Your task to perform on an android device: Go to notification settings Image 0: 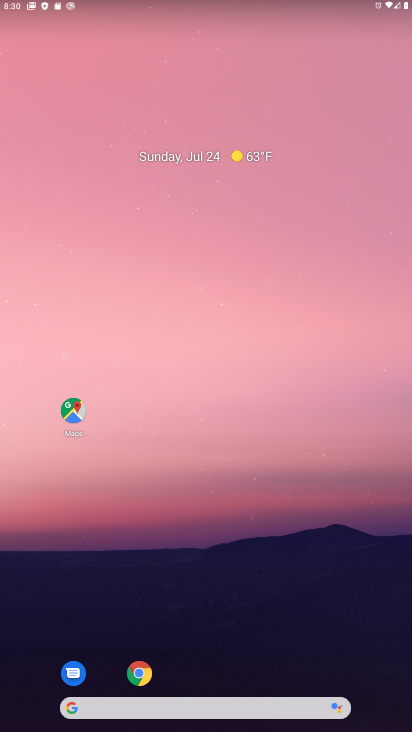
Step 0: drag from (176, 684) to (74, 29)
Your task to perform on an android device: Go to notification settings Image 1: 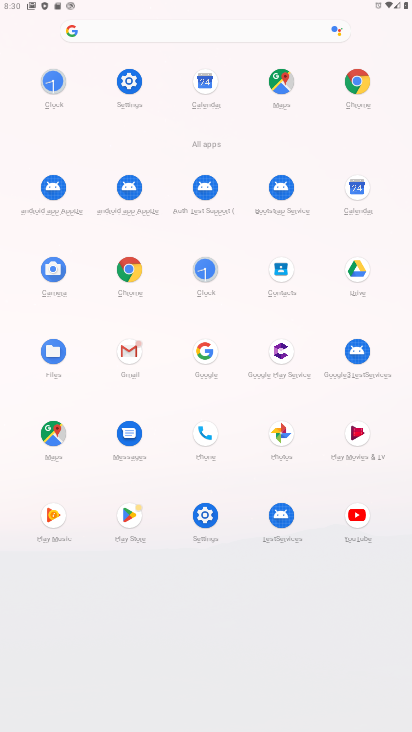
Step 1: click (193, 519)
Your task to perform on an android device: Go to notification settings Image 2: 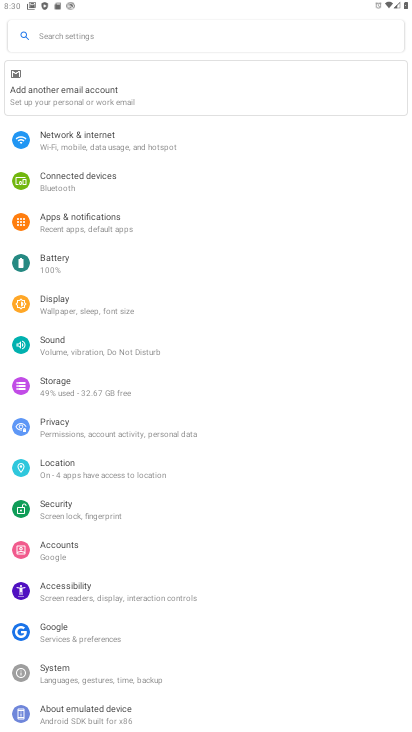
Step 2: click (94, 213)
Your task to perform on an android device: Go to notification settings Image 3: 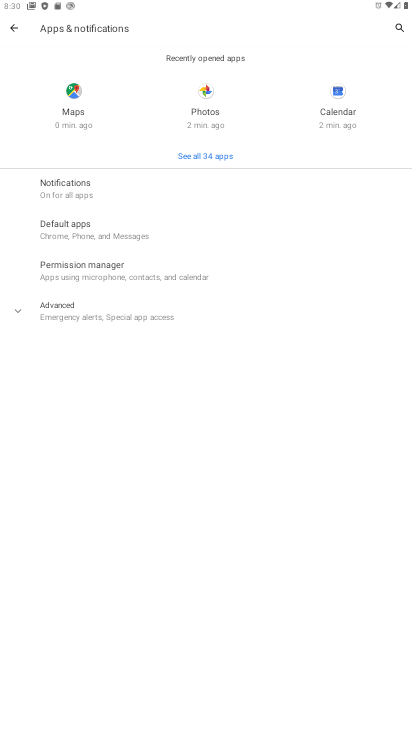
Step 3: click (128, 188)
Your task to perform on an android device: Go to notification settings Image 4: 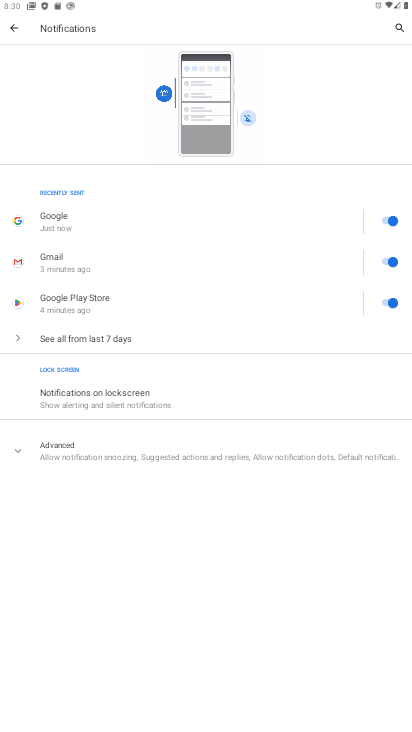
Step 4: task complete